Your task to perform on an android device: Open eBay Image 0: 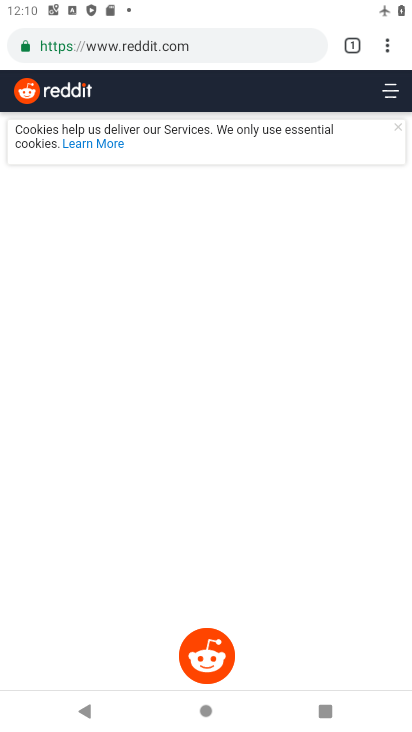
Step 0: press home button
Your task to perform on an android device: Open eBay Image 1: 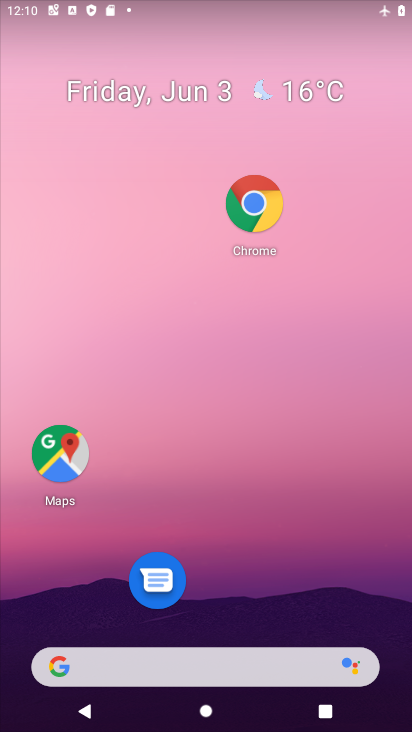
Step 1: drag from (257, 590) to (371, 64)
Your task to perform on an android device: Open eBay Image 2: 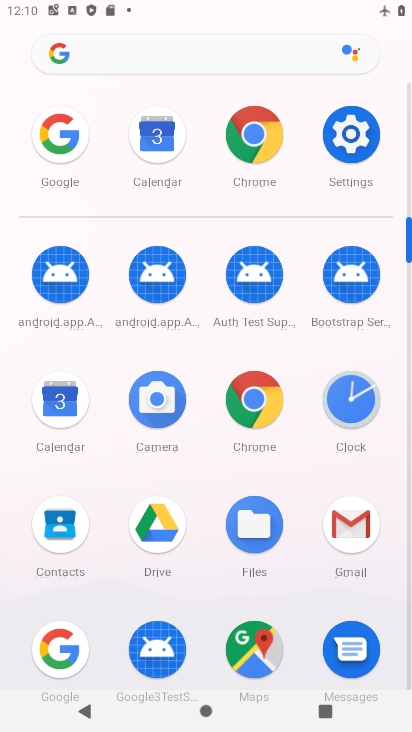
Step 2: click (260, 151)
Your task to perform on an android device: Open eBay Image 3: 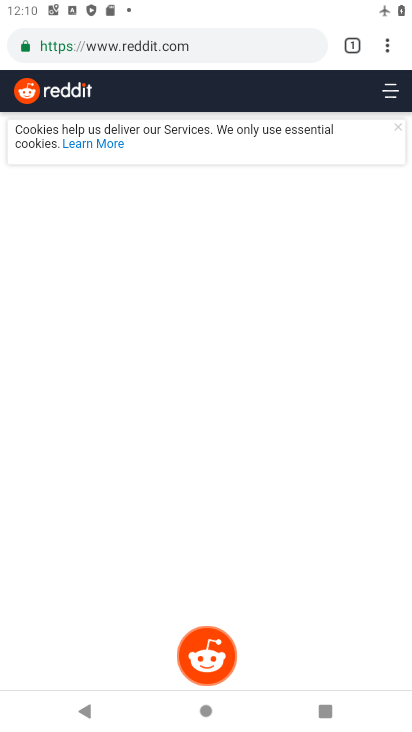
Step 3: click (268, 44)
Your task to perform on an android device: Open eBay Image 4: 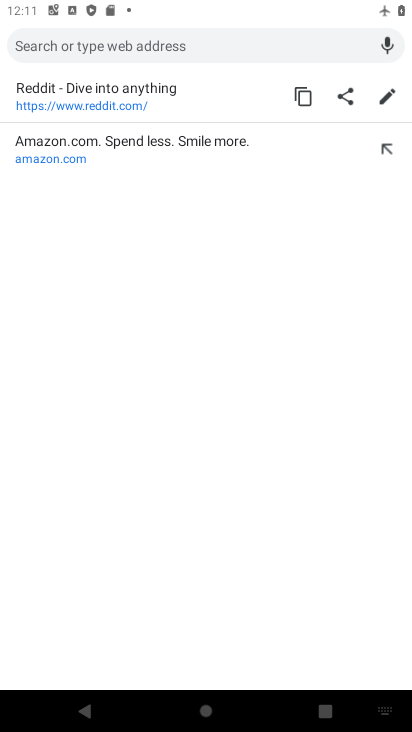
Step 4: type "ebay"
Your task to perform on an android device: Open eBay Image 5: 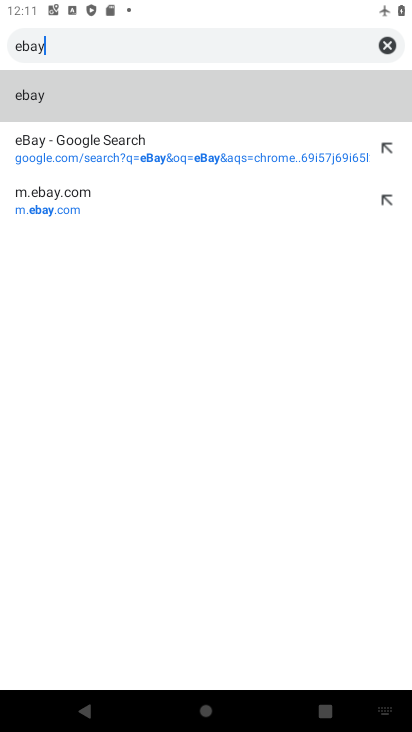
Step 5: click (188, 206)
Your task to perform on an android device: Open eBay Image 6: 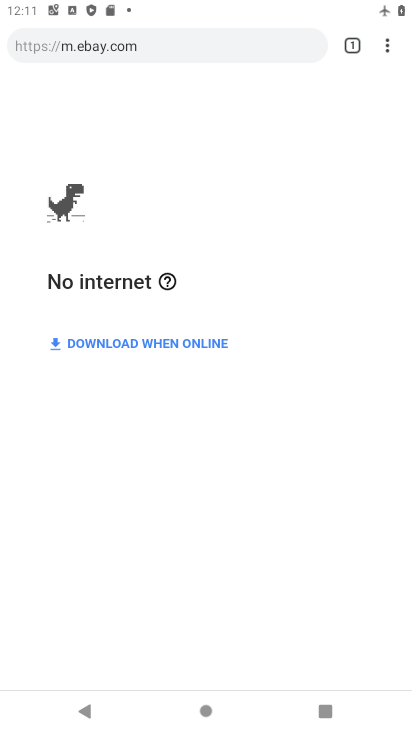
Step 6: task complete